Your task to perform on an android device: What is the news today? Image 0: 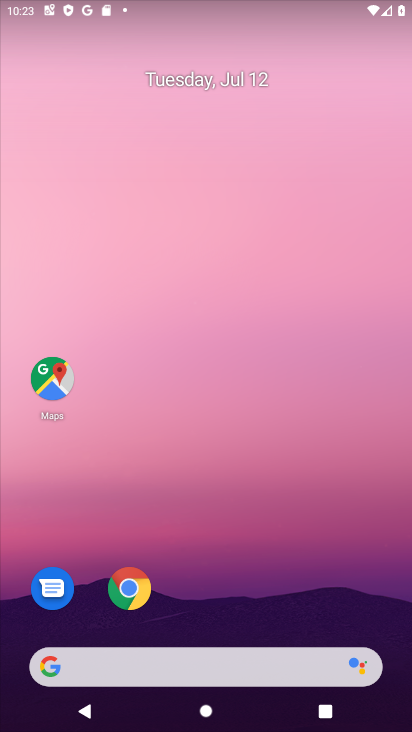
Step 0: drag from (237, 602) to (158, 99)
Your task to perform on an android device: What is the news today? Image 1: 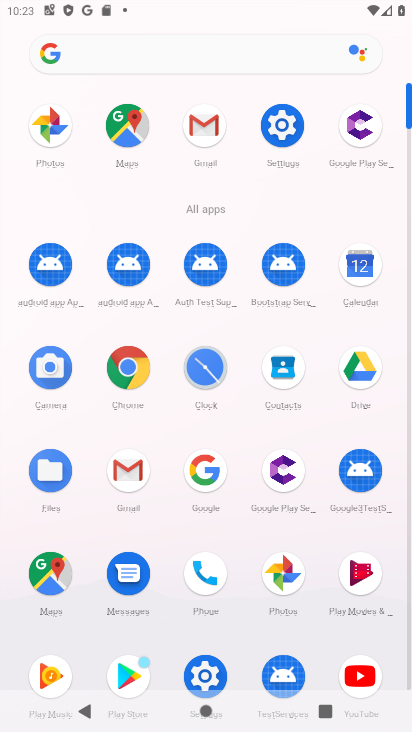
Step 1: click (112, 375)
Your task to perform on an android device: What is the news today? Image 2: 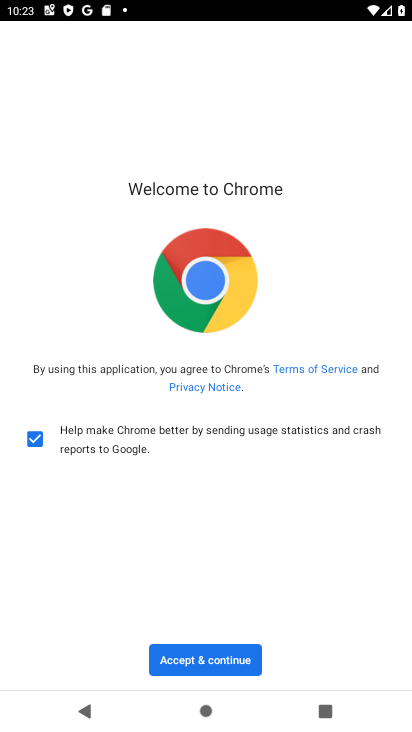
Step 2: click (231, 668)
Your task to perform on an android device: What is the news today? Image 3: 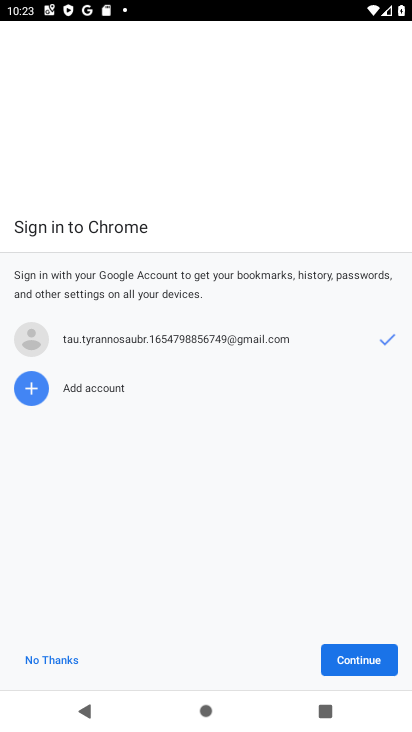
Step 3: click (366, 649)
Your task to perform on an android device: What is the news today? Image 4: 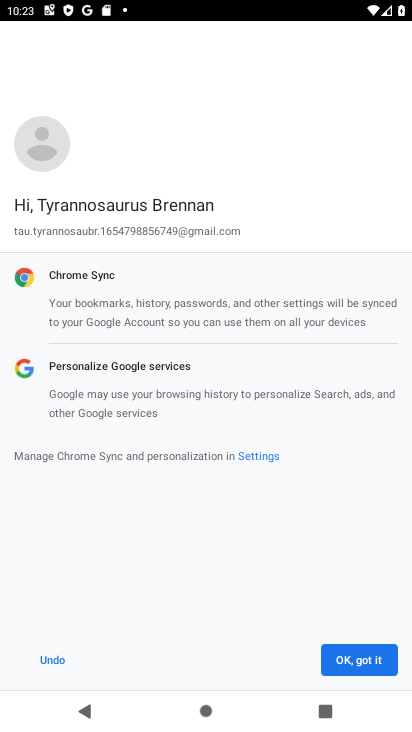
Step 4: click (366, 649)
Your task to perform on an android device: What is the news today? Image 5: 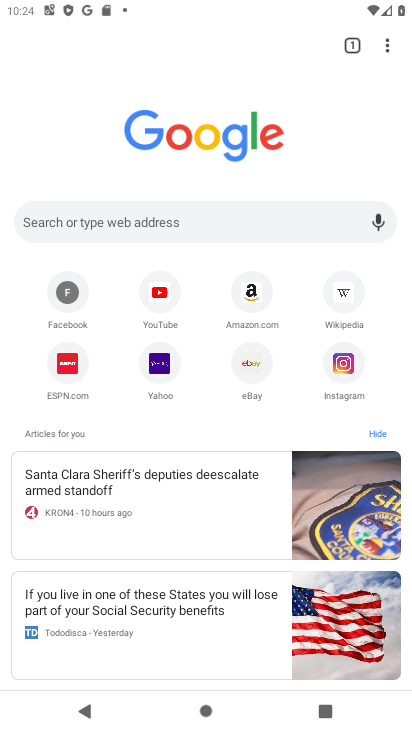
Step 5: click (161, 203)
Your task to perform on an android device: What is the news today? Image 6: 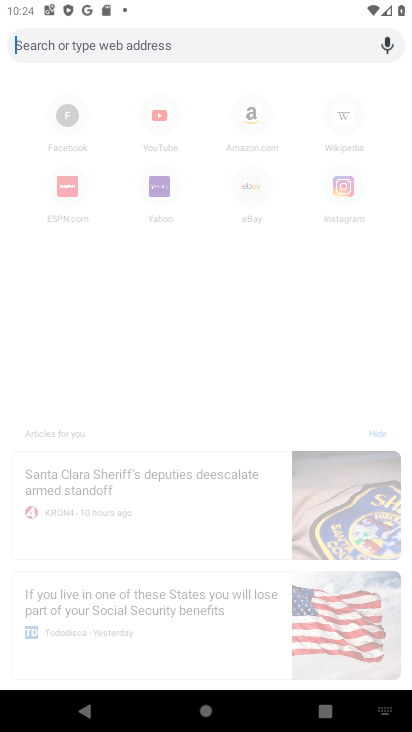
Step 6: type "what is the news today?"
Your task to perform on an android device: What is the news today? Image 7: 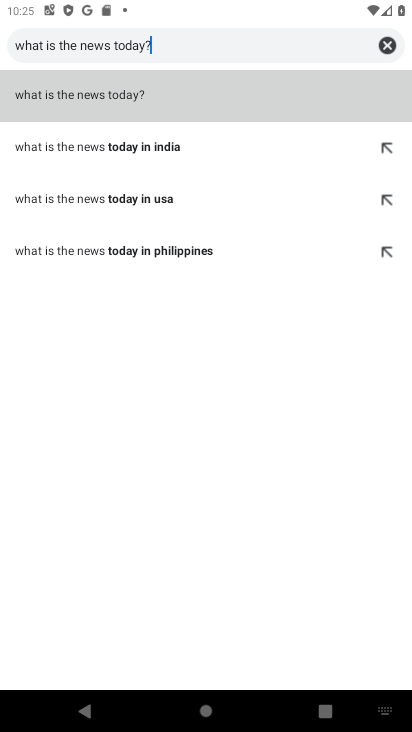
Step 7: click (101, 97)
Your task to perform on an android device: What is the news today? Image 8: 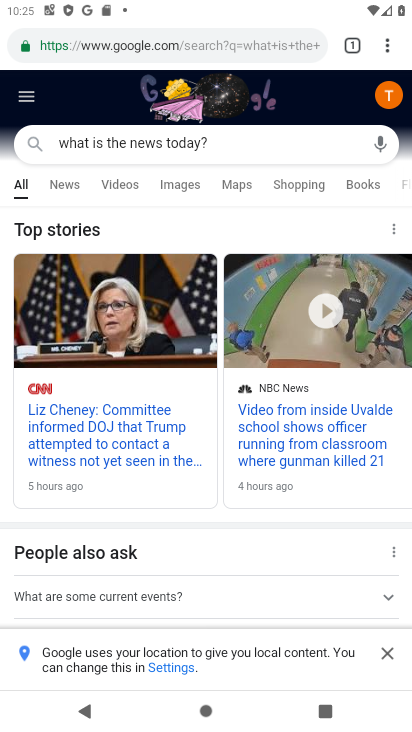
Step 8: click (66, 181)
Your task to perform on an android device: What is the news today? Image 9: 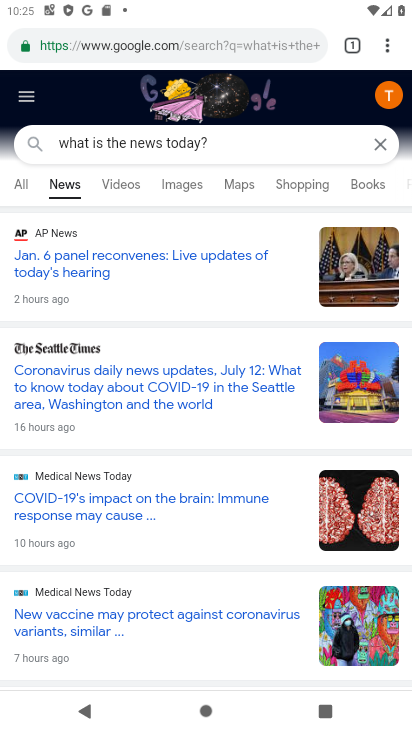
Step 9: task complete